Your task to perform on an android device: manage bookmarks in the chrome app Image 0: 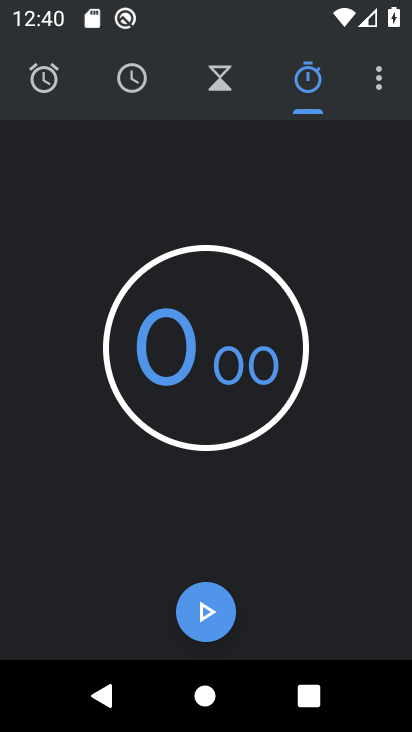
Step 0: press home button
Your task to perform on an android device: manage bookmarks in the chrome app Image 1: 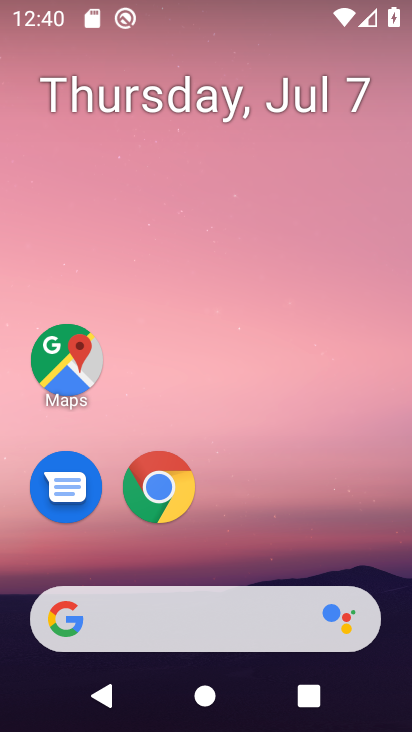
Step 1: drag from (360, 543) to (358, 163)
Your task to perform on an android device: manage bookmarks in the chrome app Image 2: 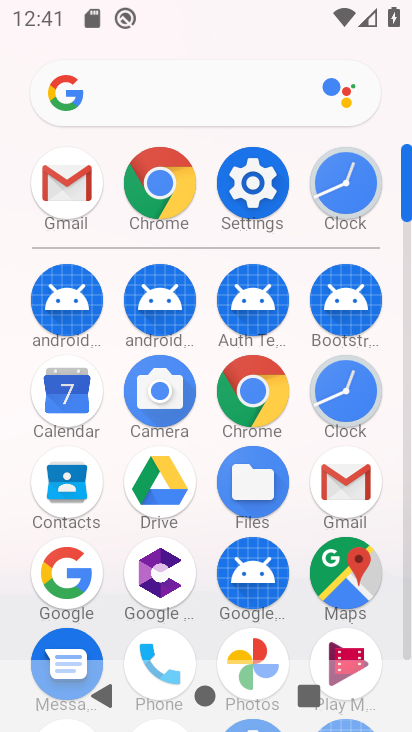
Step 2: click (259, 396)
Your task to perform on an android device: manage bookmarks in the chrome app Image 3: 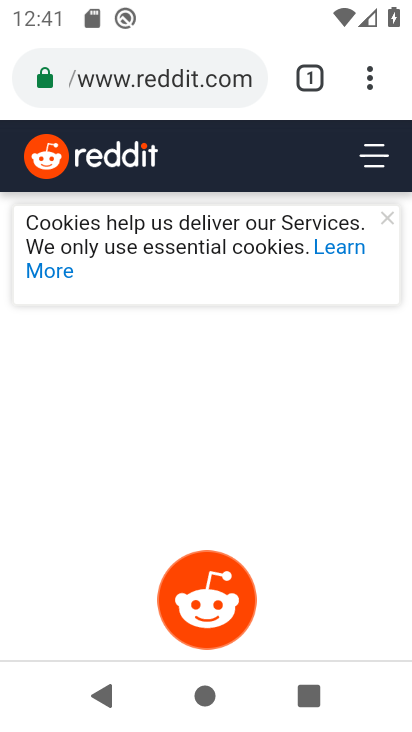
Step 3: click (368, 82)
Your task to perform on an android device: manage bookmarks in the chrome app Image 4: 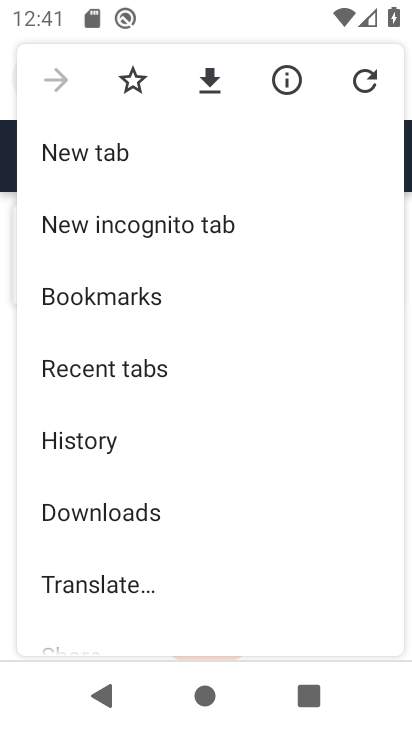
Step 4: drag from (290, 478) to (284, 274)
Your task to perform on an android device: manage bookmarks in the chrome app Image 5: 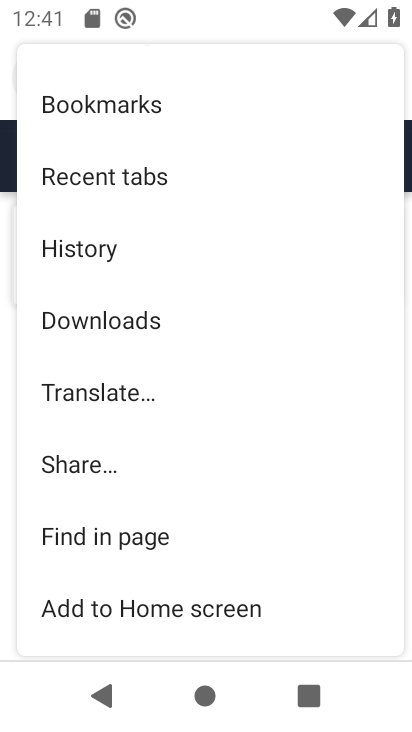
Step 5: drag from (332, 530) to (336, 336)
Your task to perform on an android device: manage bookmarks in the chrome app Image 6: 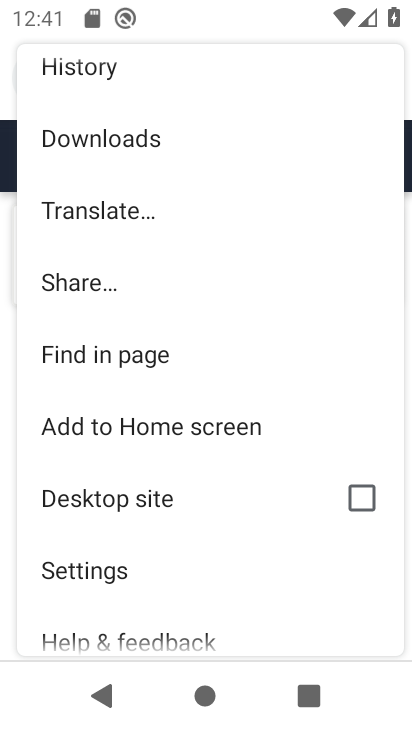
Step 6: drag from (298, 240) to (320, 414)
Your task to perform on an android device: manage bookmarks in the chrome app Image 7: 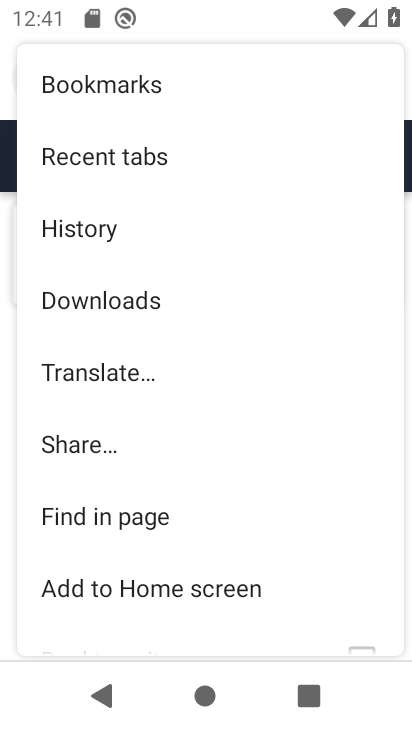
Step 7: drag from (315, 217) to (289, 386)
Your task to perform on an android device: manage bookmarks in the chrome app Image 8: 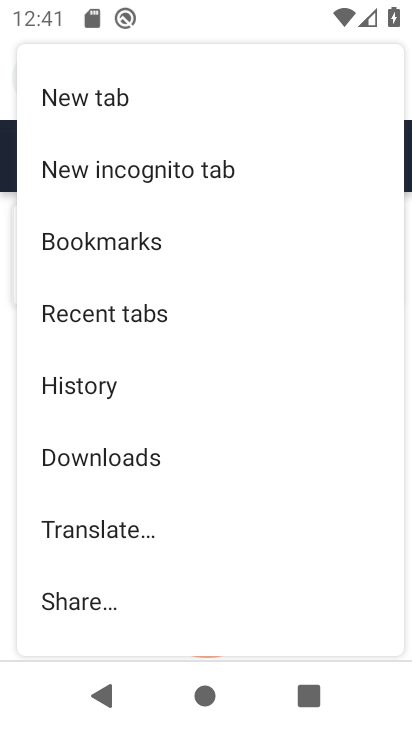
Step 8: drag from (281, 232) to (289, 358)
Your task to perform on an android device: manage bookmarks in the chrome app Image 9: 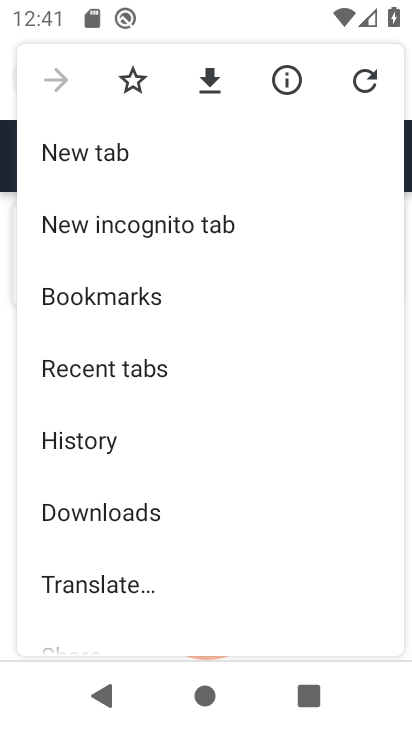
Step 9: click (186, 302)
Your task to perform on an android device: manage bookmarks in the chrome app Image 10: 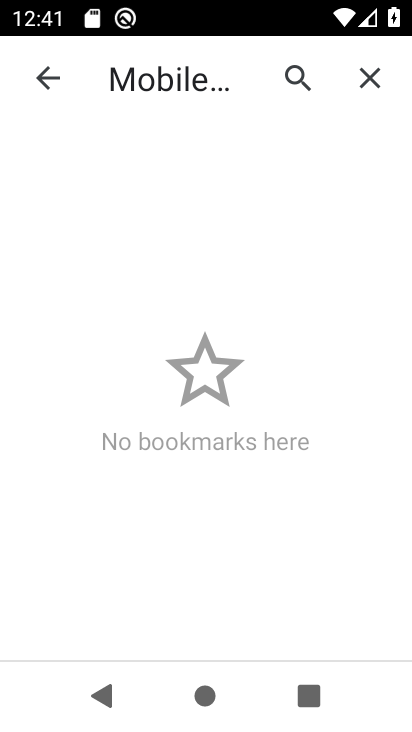
Step 10: task complete